Your task to perform on an android device: Open my contact list Image 0: 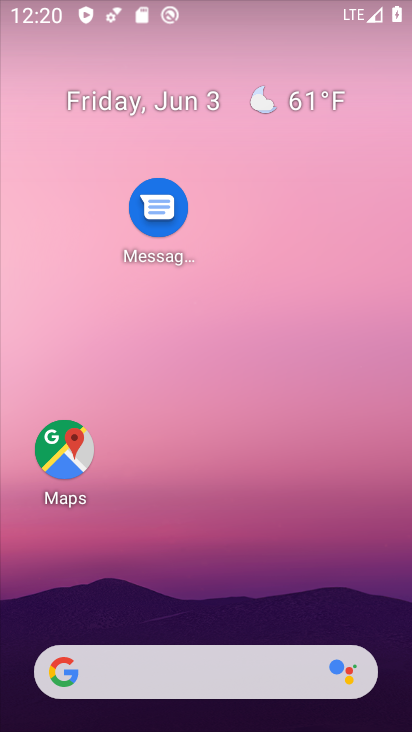
Step 0: drag from (216, 626) to (159, 91)
Your task to perform on an android device: Open my contact list Image 1: 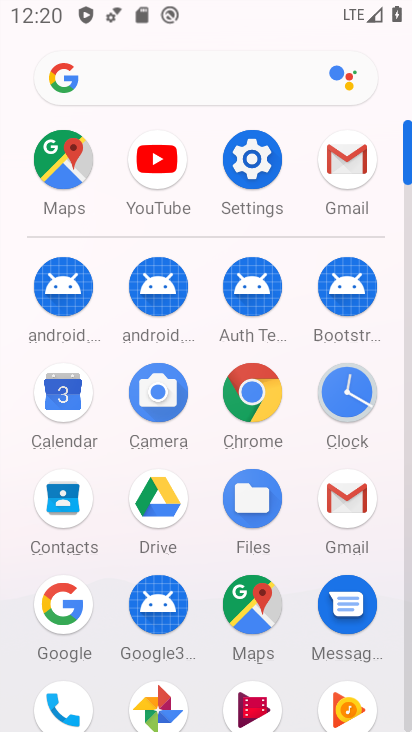
Step 1: click (73, 692)
Your task to perform on an android device: Open my contact list Image 2: 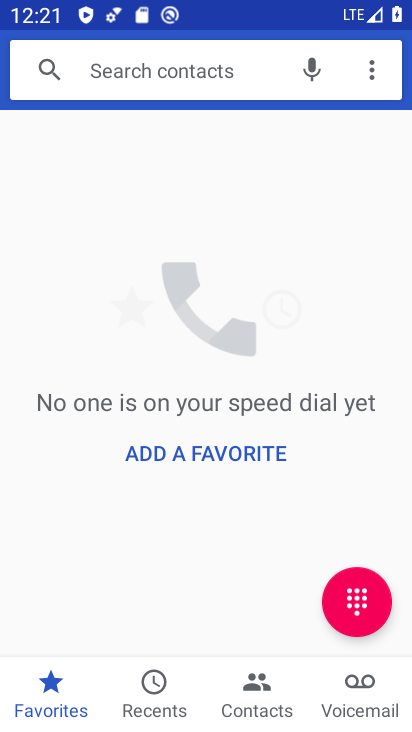
Step 2: click (336, 693)
Your task to perform on an android device: Open my contact list Image 3: 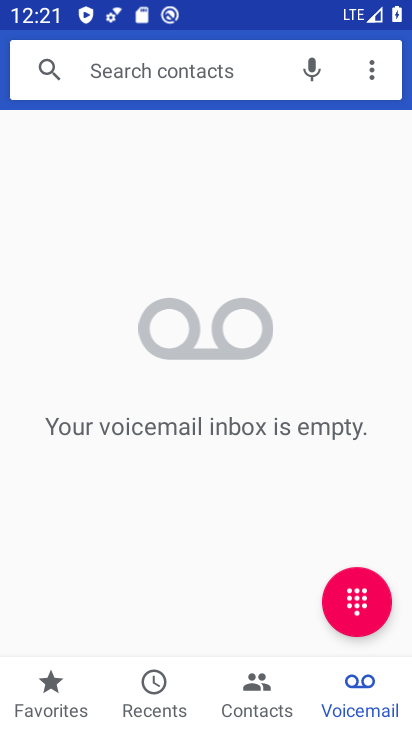
Step 3: click (243, 685)
Your task to perform on an android device: Open my contact list Image 4: 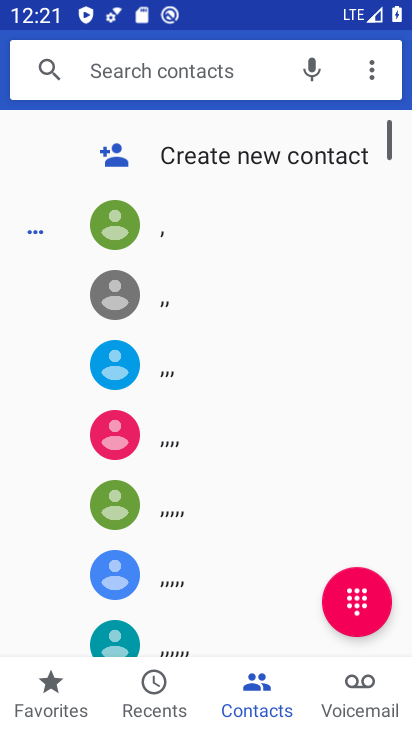
Step 4: task complete